Your task to perform on an android device: open chrome and create a bookmark for the current page Image 0: 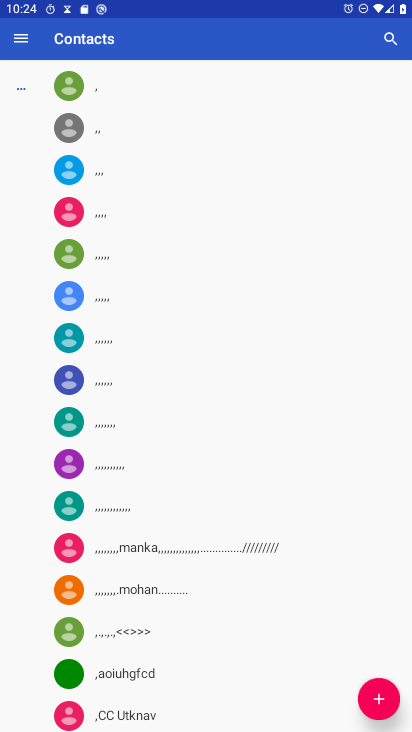
Step 0: press home button
Your task to perform on an android device: open chrome and create a bookmark for the current page Image 1: 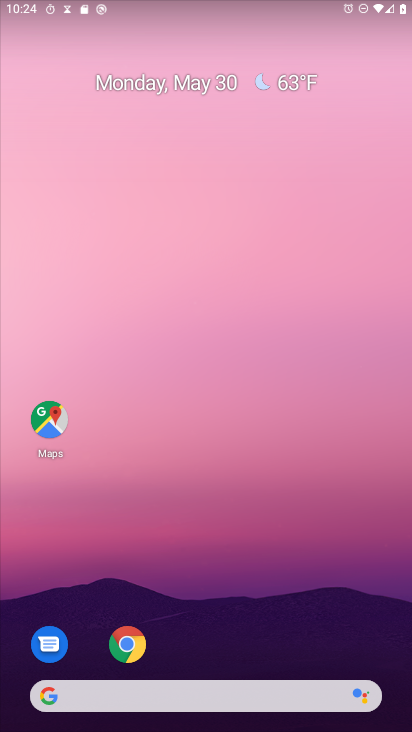
Step 1: click (124, 648)
Your task to perform on an android device: open chrome and create a bookmark for the current page Image 2: 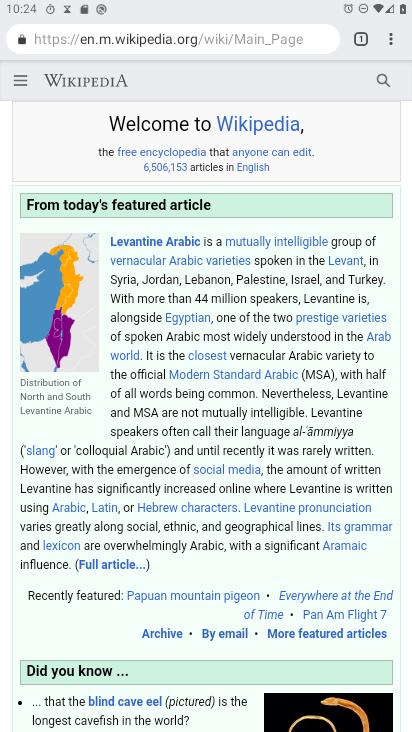
Step 2: click (386, 34)
Your task to perform on an android device: open chrome and create a bookmark for the current page Image 3: 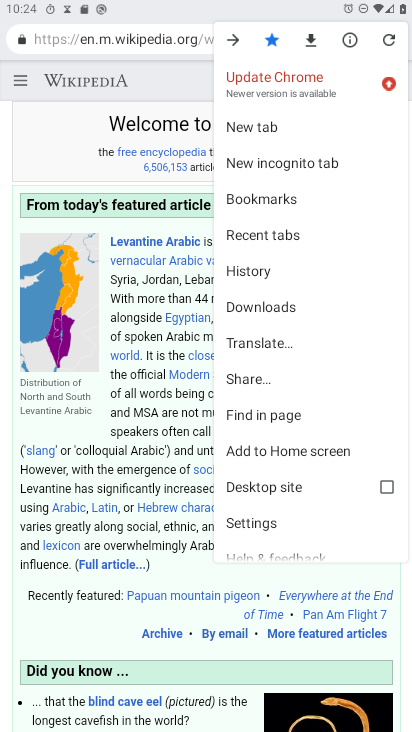
Step 3: task complete